Your task to perform on an android device: open app "Paramount+ | Peak Streaming" Image 0: 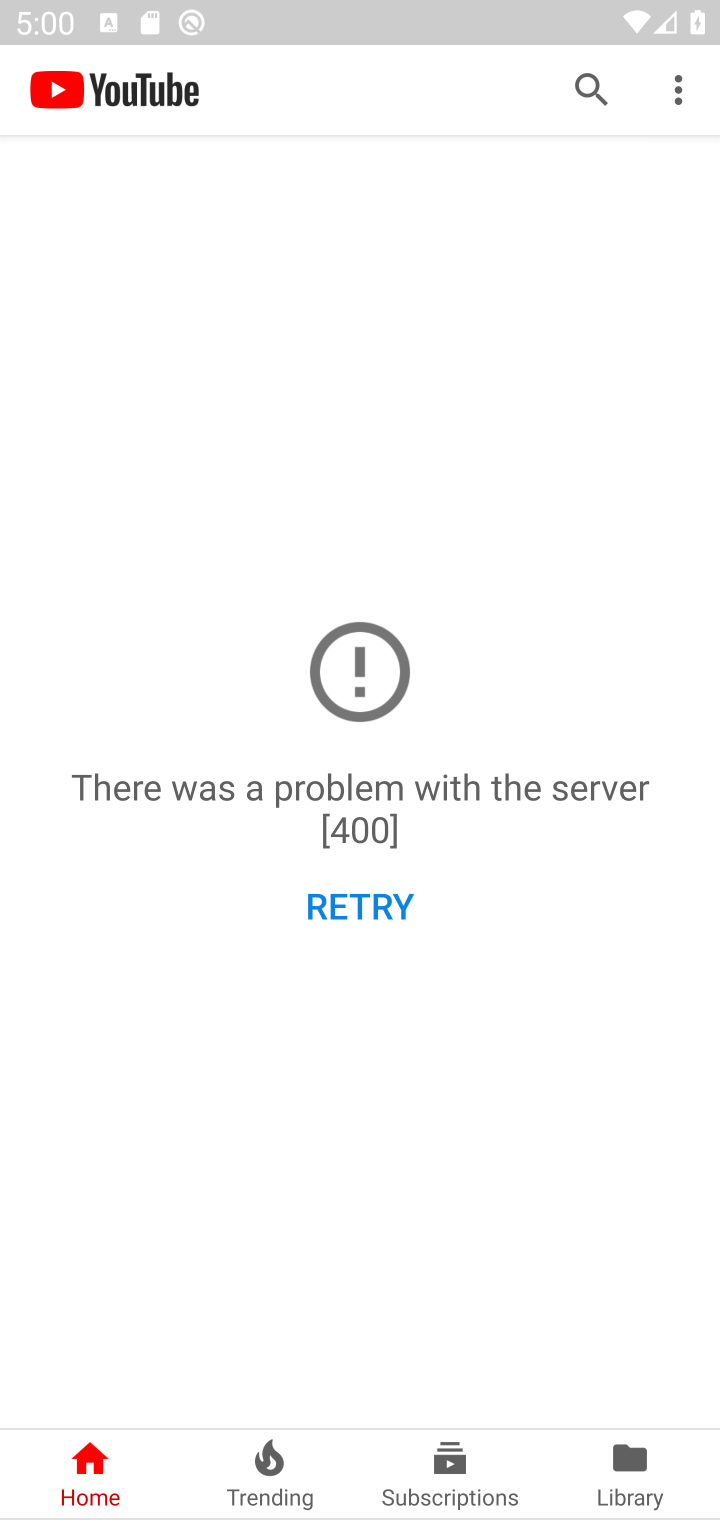
Step 0: press home button
Your task to perform on an android device: open app "Paramount+ | Peak Streaming" Image 1: 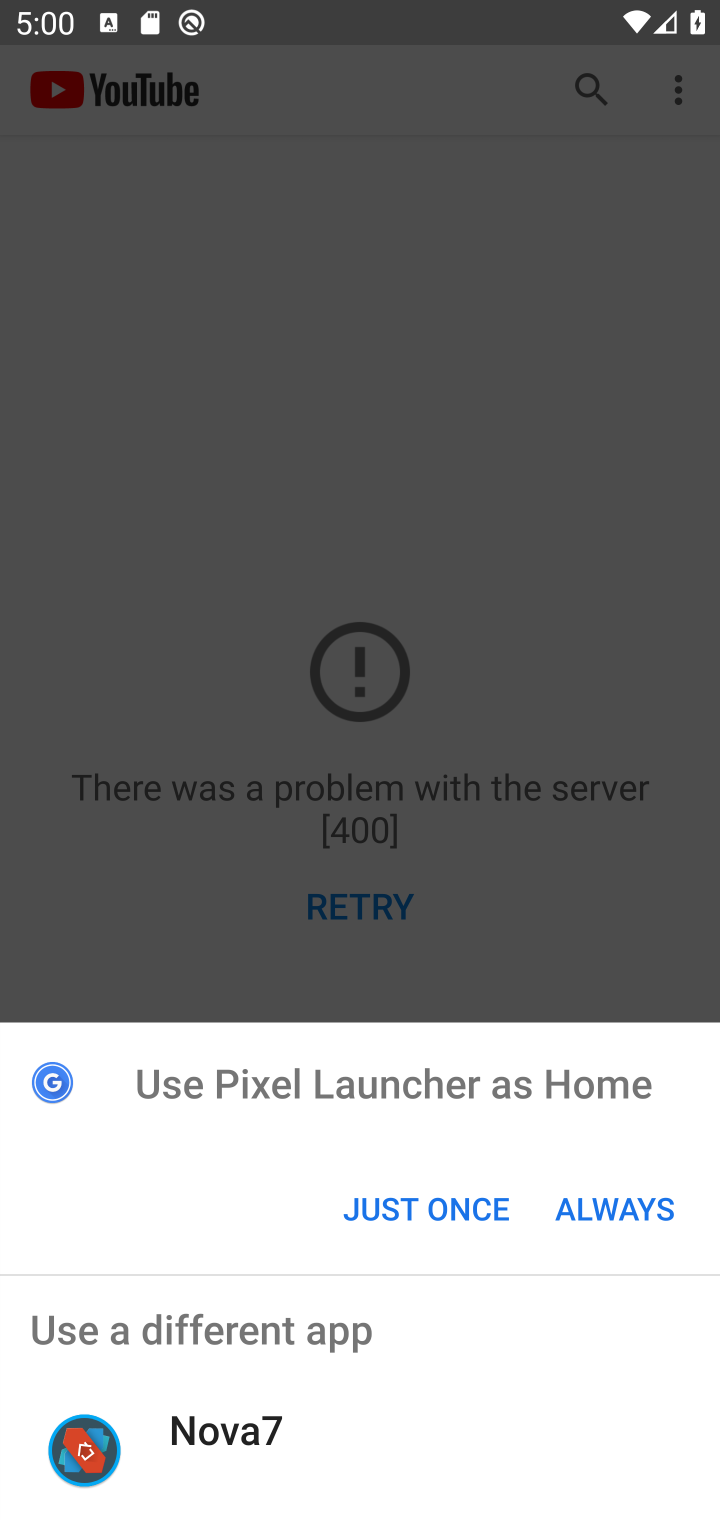
Step 1: click (464, 1200)
Your task to perform on an android device: open app "Paramount+ | Peak Streaming" Image 2: 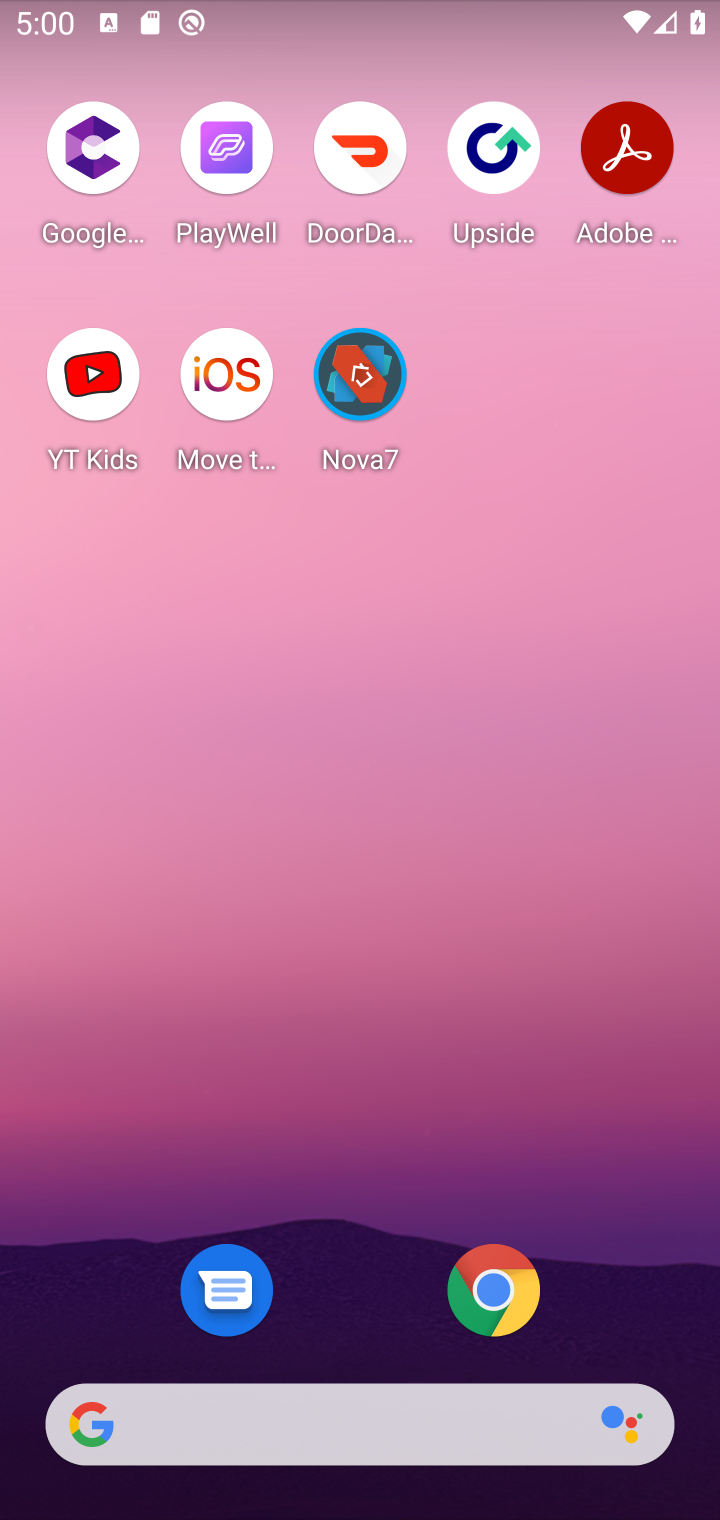
Step 2: drag from (344, 1410) to (419, 1)
Your task to perform on an android device: open app "Paramount+ | Peak Streaming" Image 3: 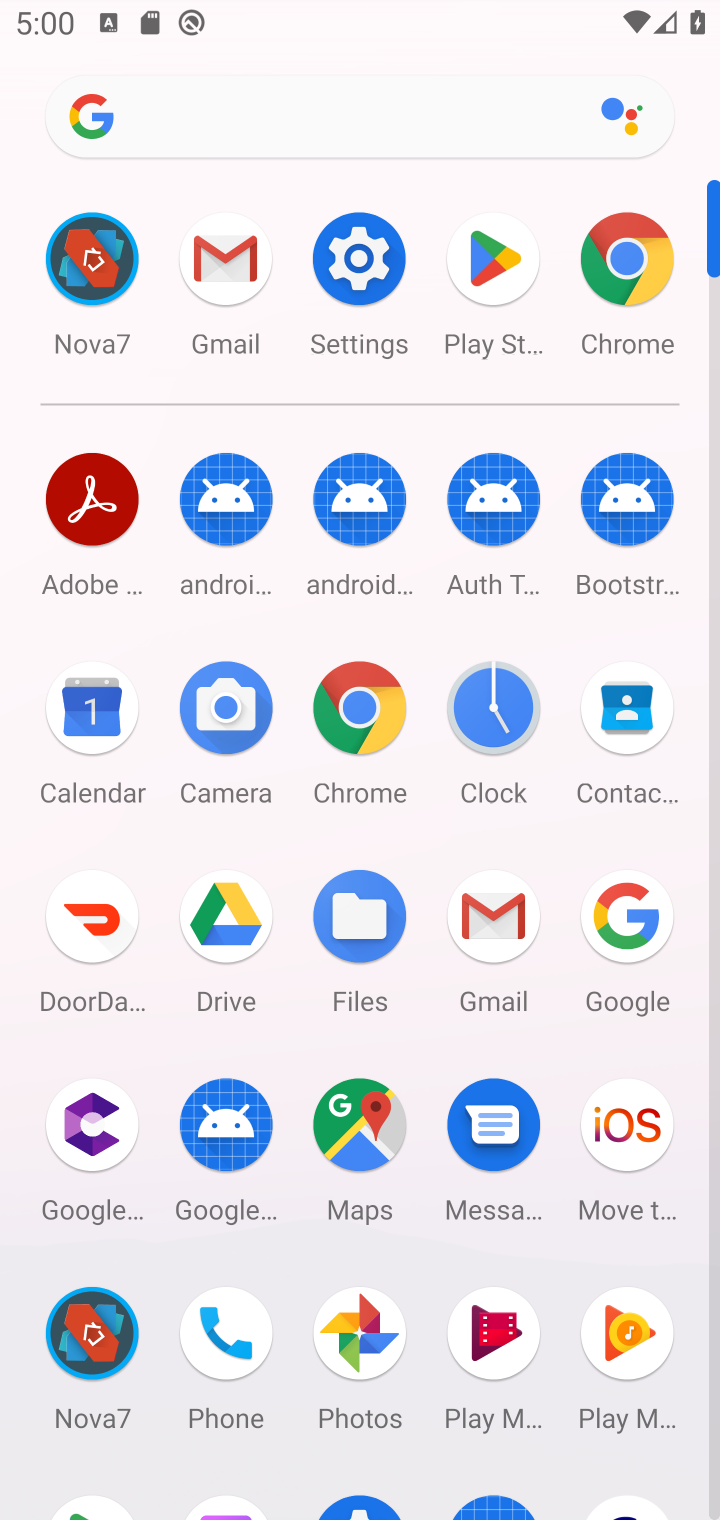
Step 3: click (464, 245)
Your task to perform on an android device: open app "Paramount+ | Peak Streaming" Image 4: 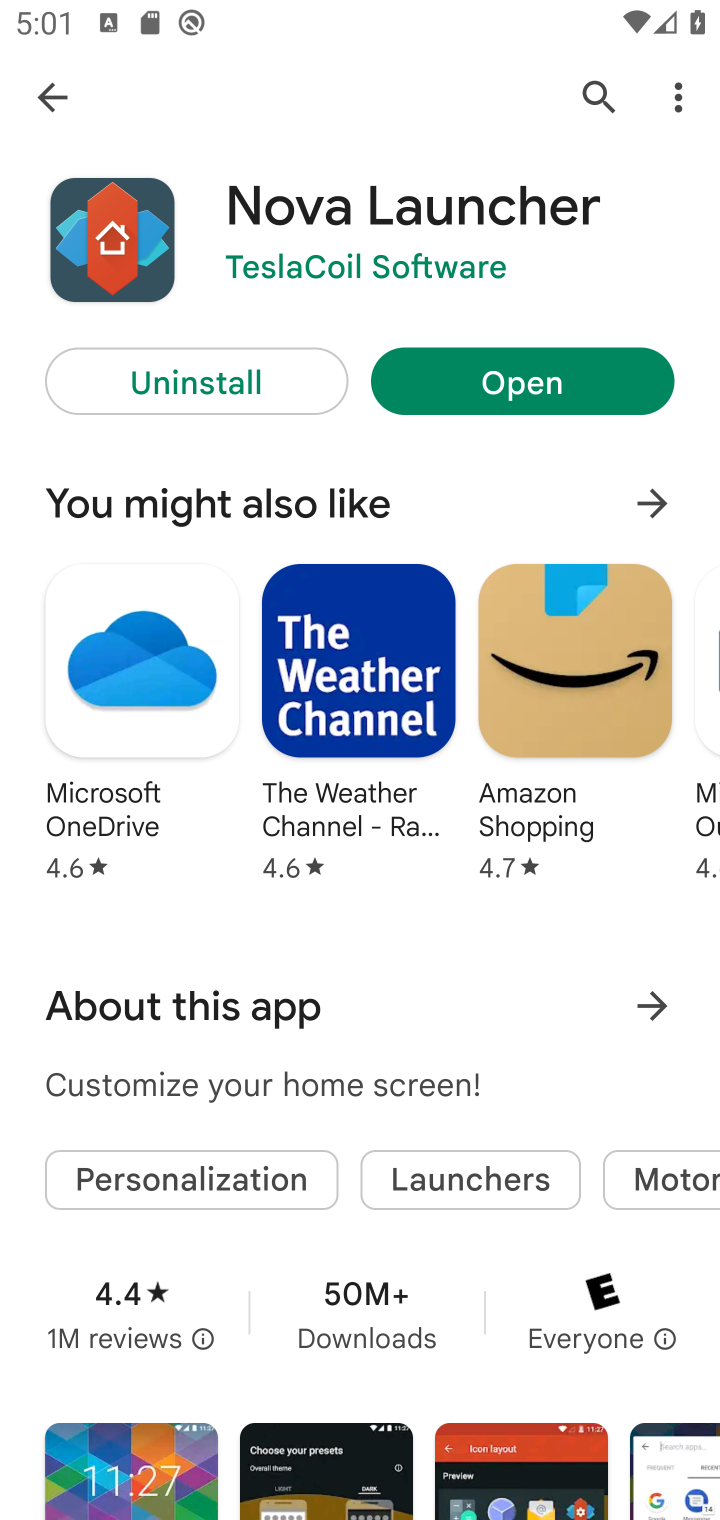
Step 4: click (611, 83)
Your task to perform on an android device: open app "Paramount+ | Peak Streaming" Image 5: 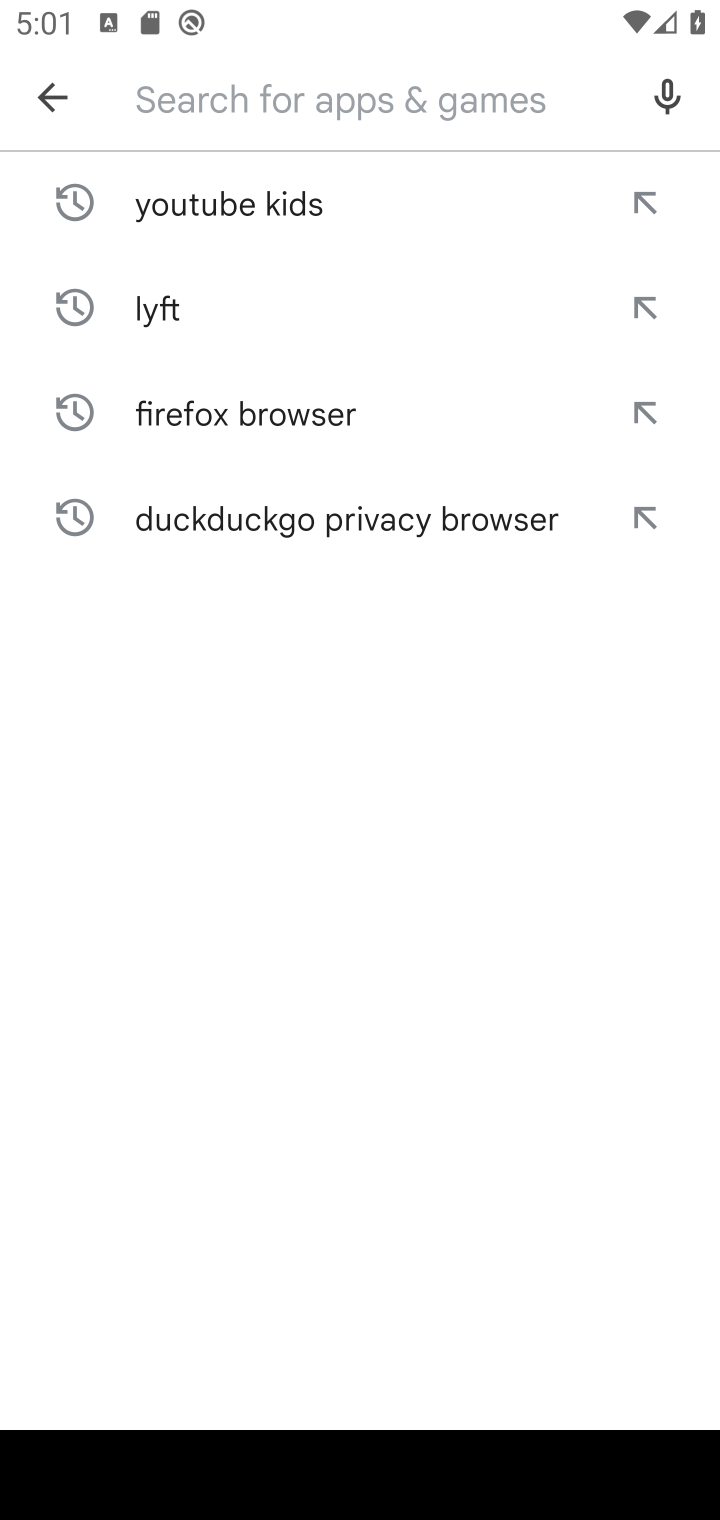
Step 5: type "paramount+ | peak streaming"
Your task to perform on an android device: open app "Paramount+ | Peak Streaming" Image 6: 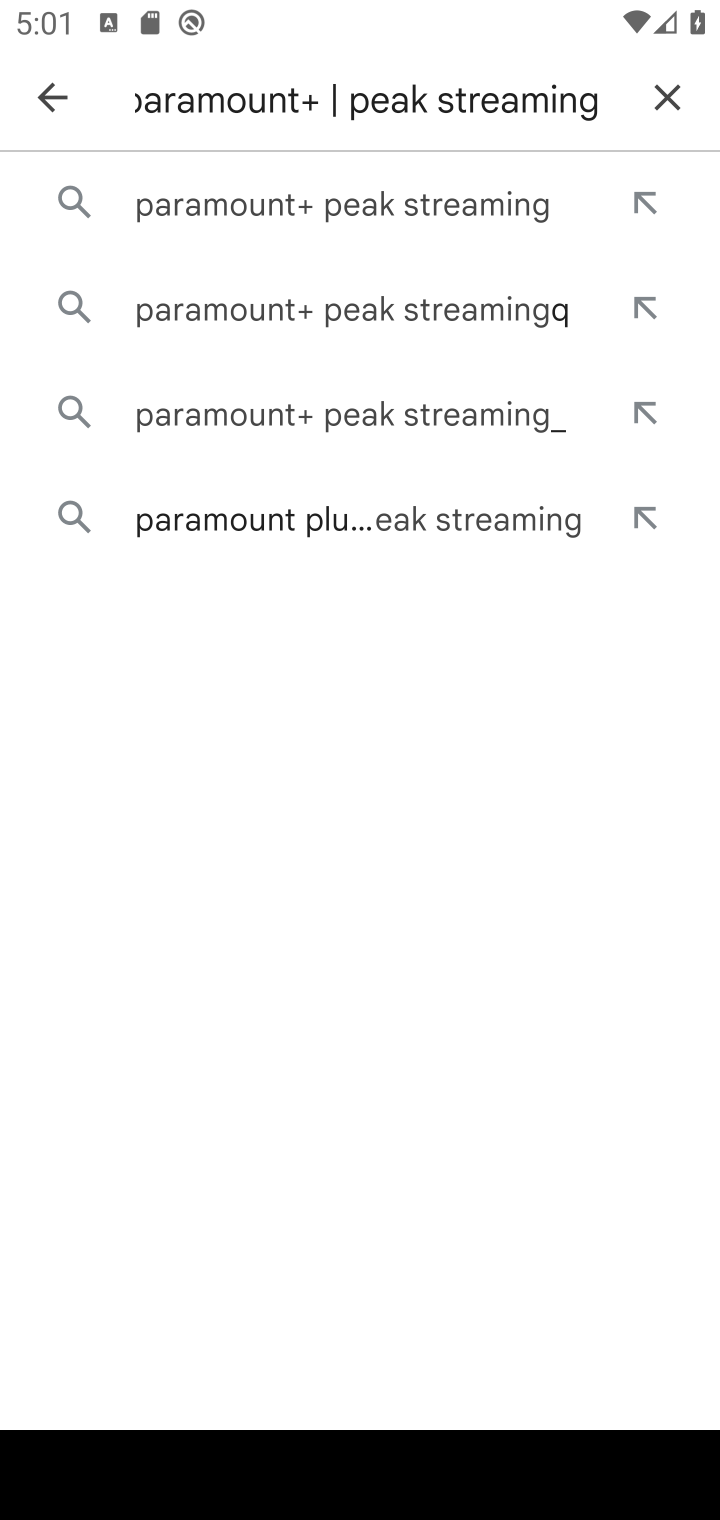
Step 6: click (396, 216)
Your task to perform on an android device: open app "Paramount+ | Peak Streaming" Image 7: 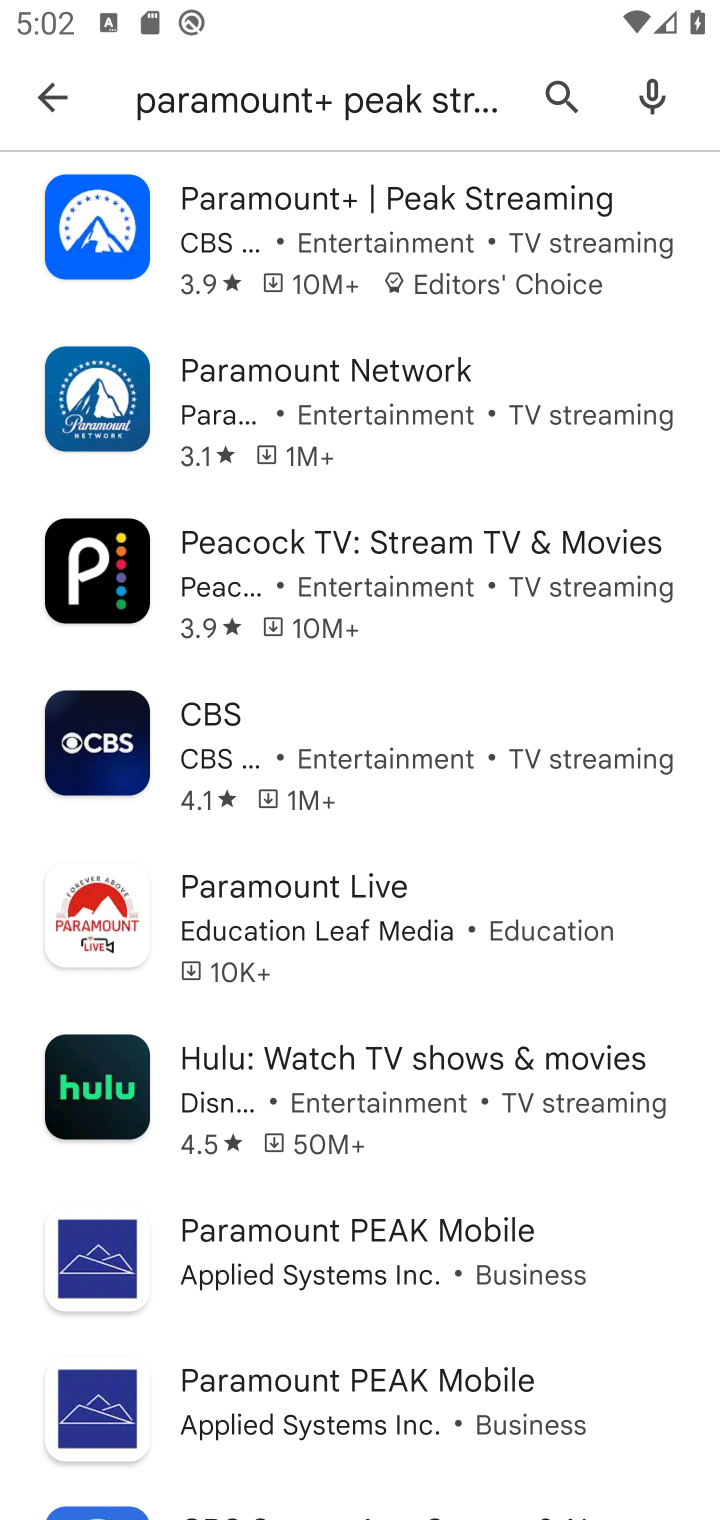
Step 7: click (396, 216)
Your task to perform on an android device: open app "Paramount+ | Peak Streaming" Image 8: 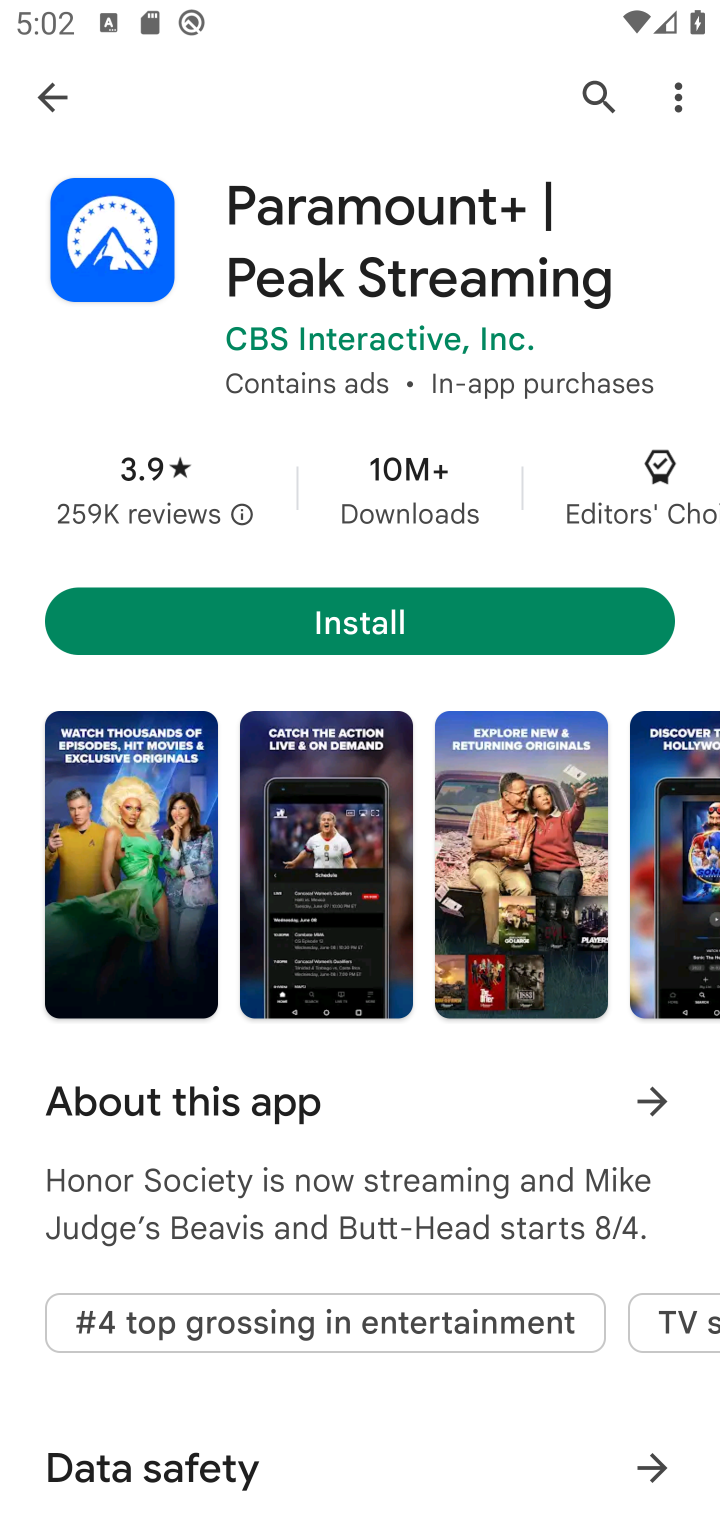
Step 8: task complete